Your task to perform on an android device: Open Yahoo.com Image 0: 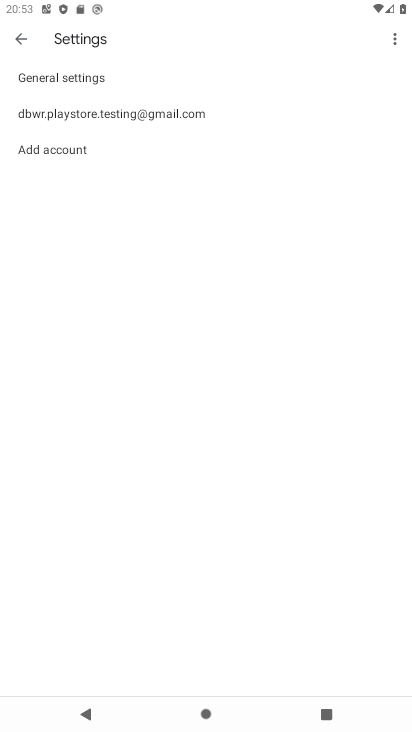
Step 0: press home button
Your task to perform on an android device: Open Yahoo.com Image 1: 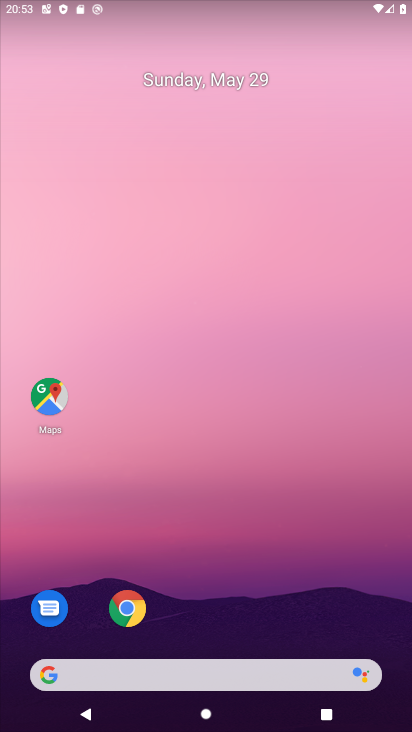
Step 1: drag from (306, 620) to (334, 261)
Your task to perform on an android device: Open Yahoo.com Image 2: 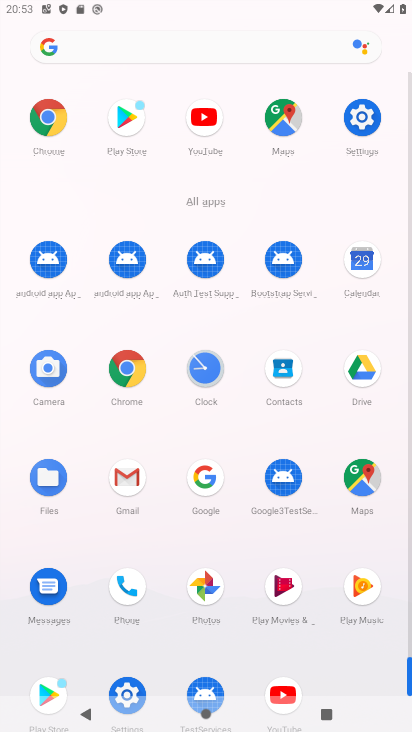
Step 2: click (129, 378)
Your task to perform on an android device: Open Yahoo.com Image 3: 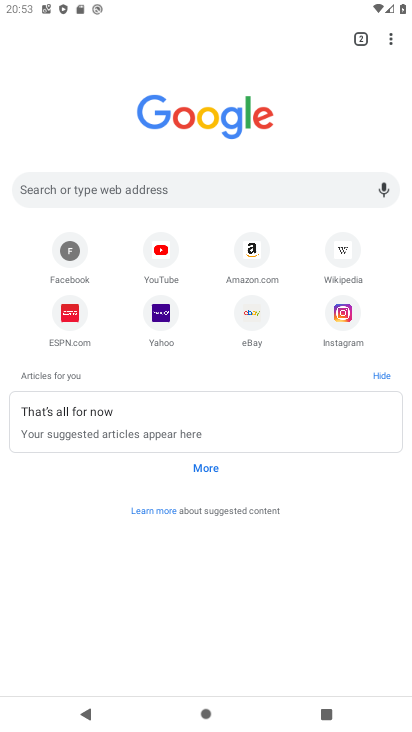
Step 3: click (225, 187)
Your task to perform on an android device: Open Yahoo.com Image 4: 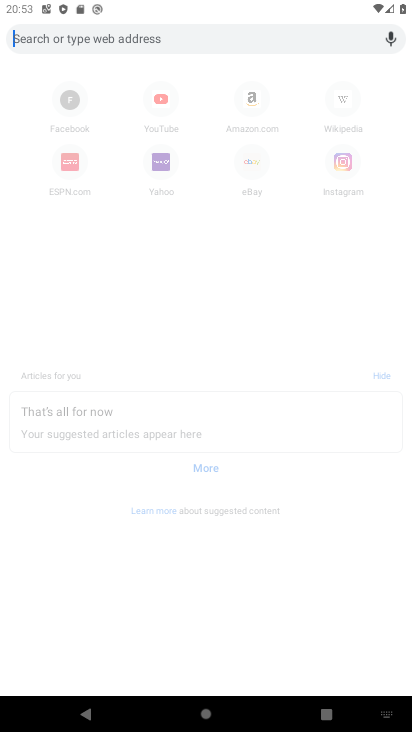
Step 4: type "yahoo.com"
Your task to perform on an android device: Open Yahoo.com Image 5: 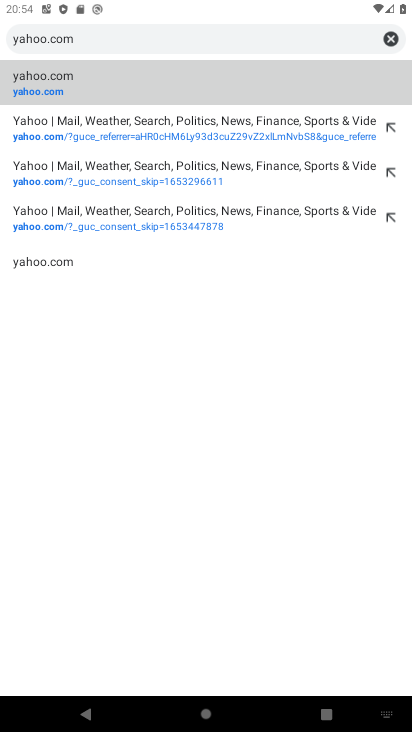
Step 5: click (128, 85)
Your task to perform on an android device: Open Yahoo.com Image 6: 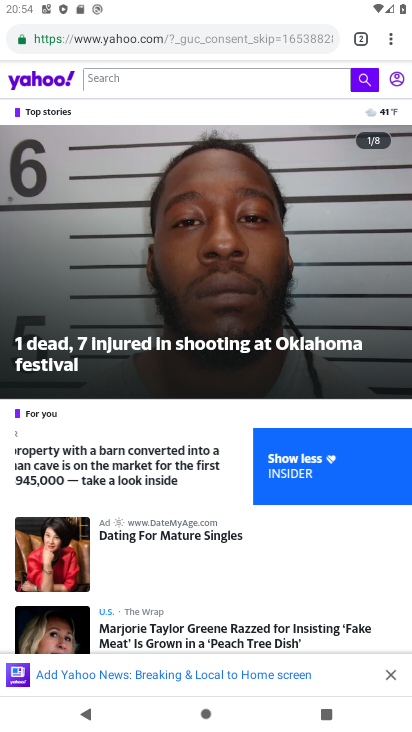
Step 6: task complete